Your task to perform on an android device: Empty the shopping cart on ebay. Image 0: 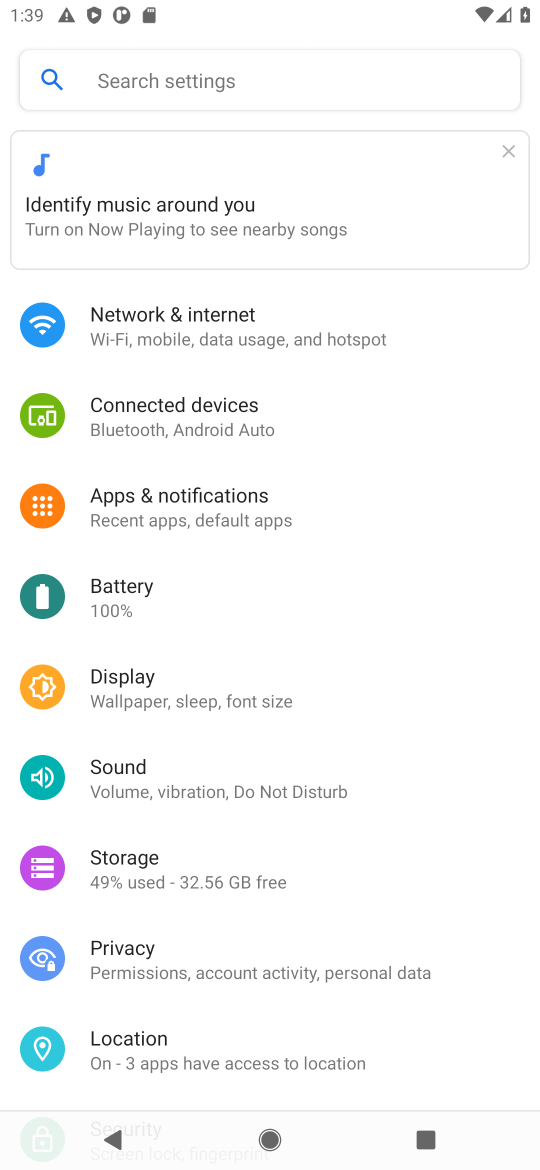
Step 0: press home button
Your task to perform on an android device: Empty the shopping cart on ebay. Image 1: 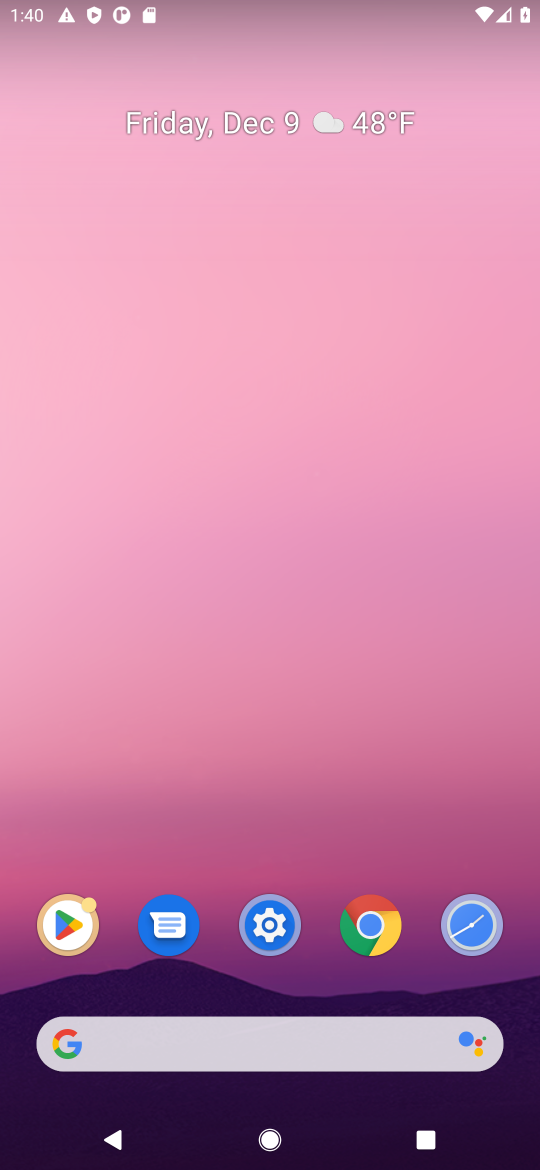
Step 1: click (161, 1034)
Your task to perform on an android device: Empty the shopping cart on ebay. Image 2: 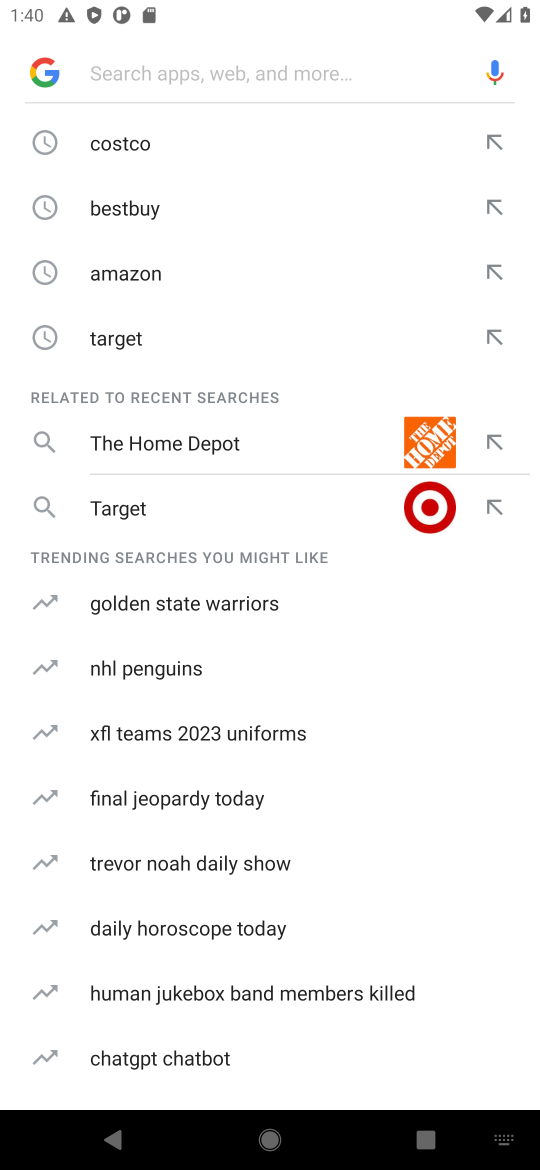
Step 2: type "ebay.com"
Your task to perform on an android device: Empty the shopping cart on ebay. Image 3: 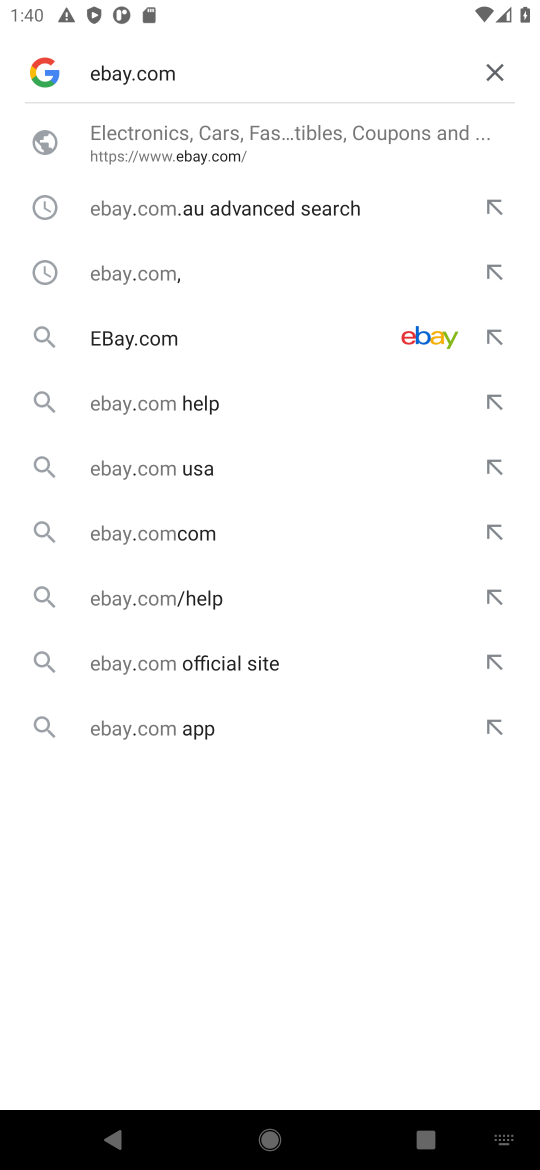
Step 3: click (263, 130)
Your task to perform on an android device: Empty the shopping cart on ebay. Image 4: 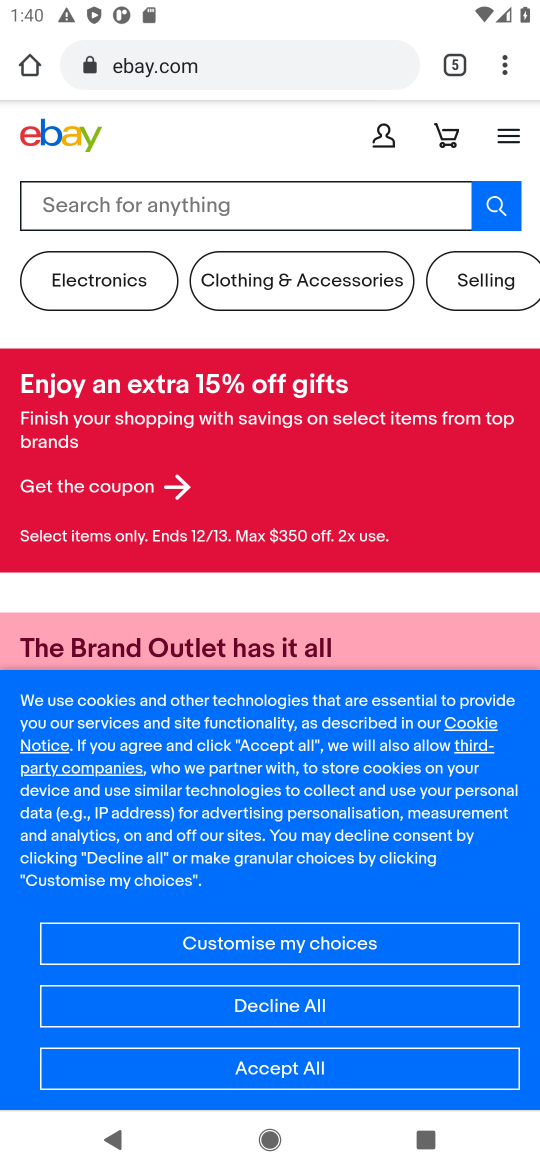
Step 4: click (162, 205)
Your task to perform on an android device: Empty the shopping cart on ebay. Image 5: 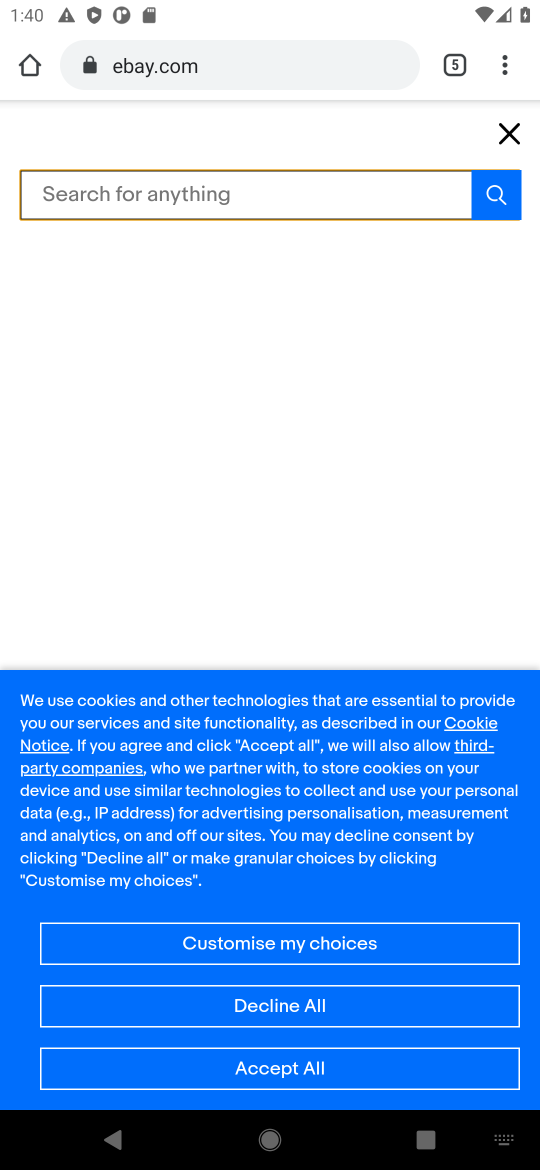
Step 5: task complete